Your task to perform on an android device: turn off javascript in the chrome app Image 0: 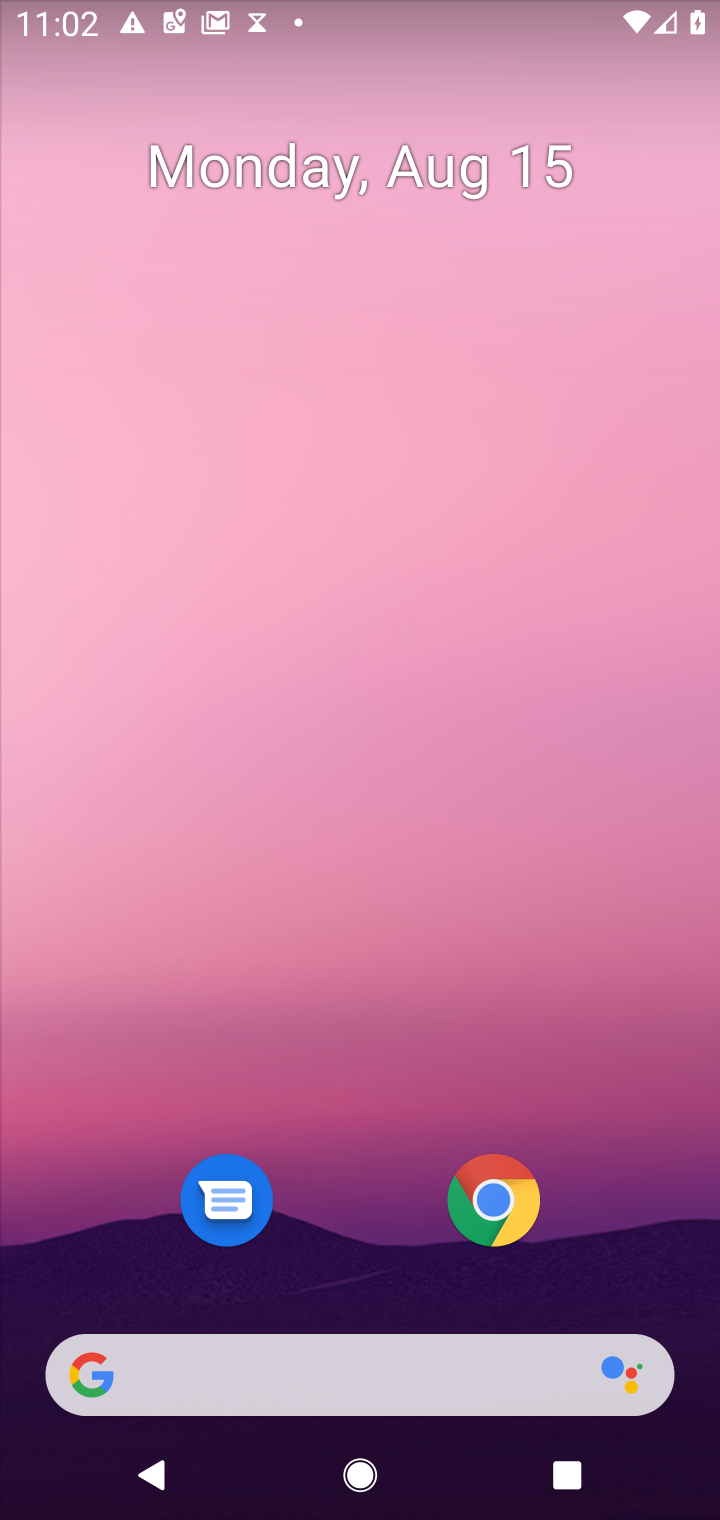
Step 0: click (494, 1223)
Your task to perform on an android device: turn off javascript in the chrome app Image 1: 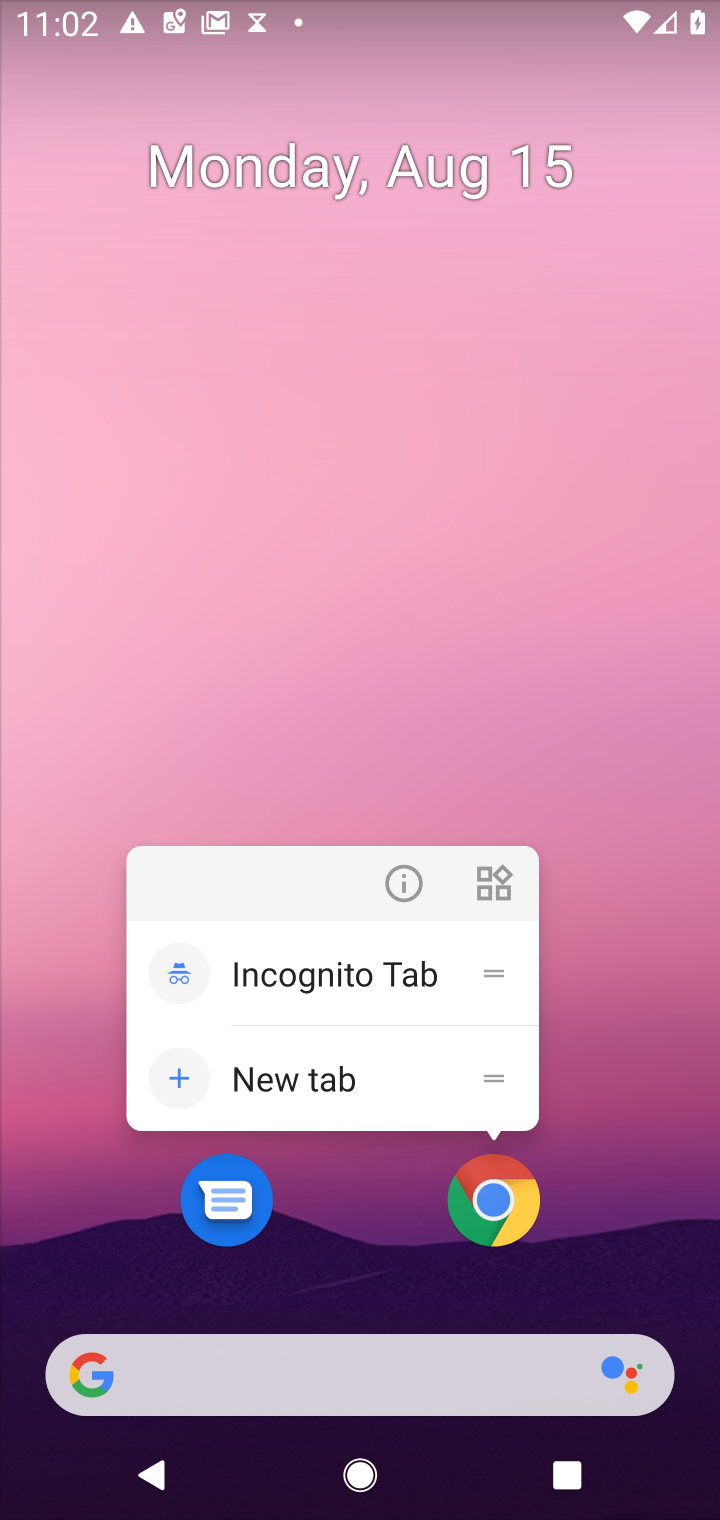
Step 1: click (494, 1223)
Your task to perform on an android device: turn off javascript in the chrome app Image 2: 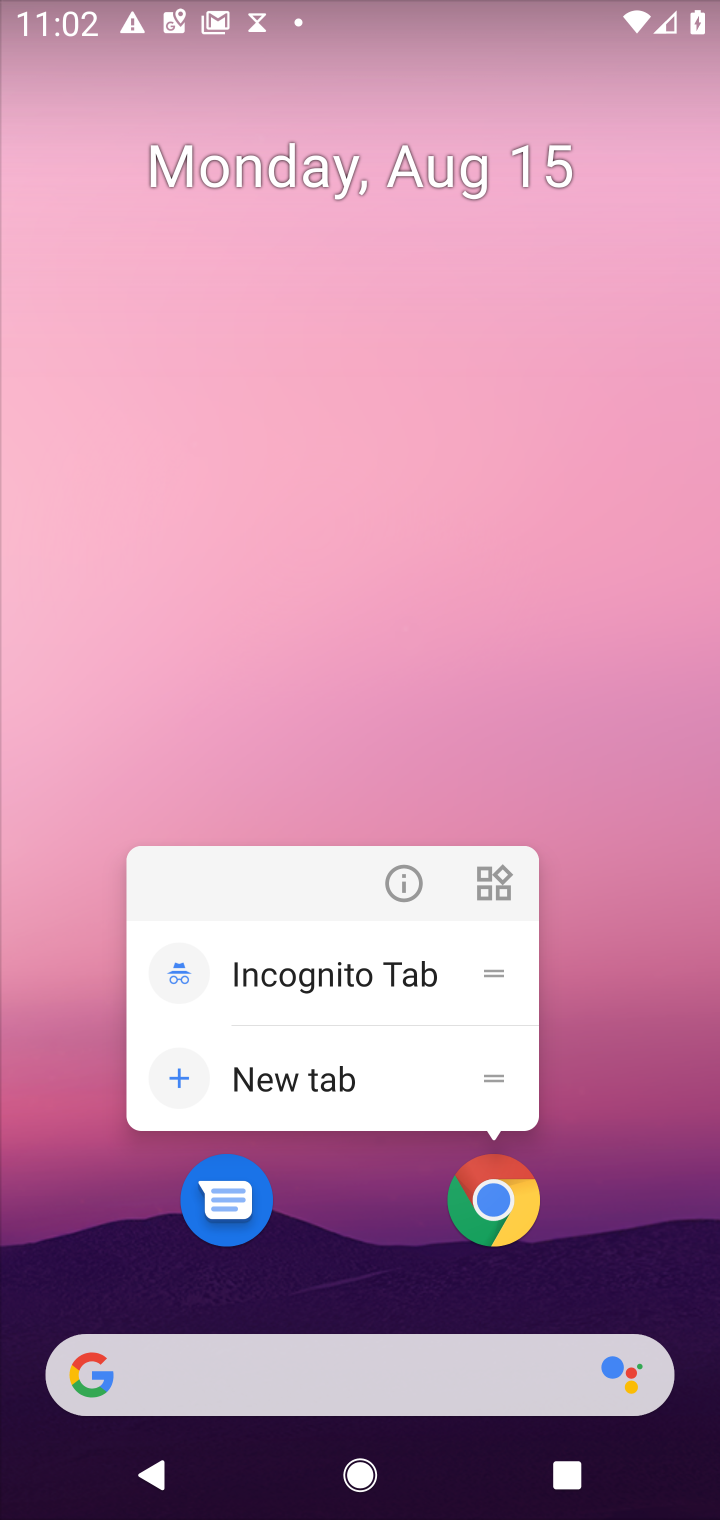
Step 2: click (494, 1223)
Your task to perform on an android device: turn off javascript in the chrome app Image 3: 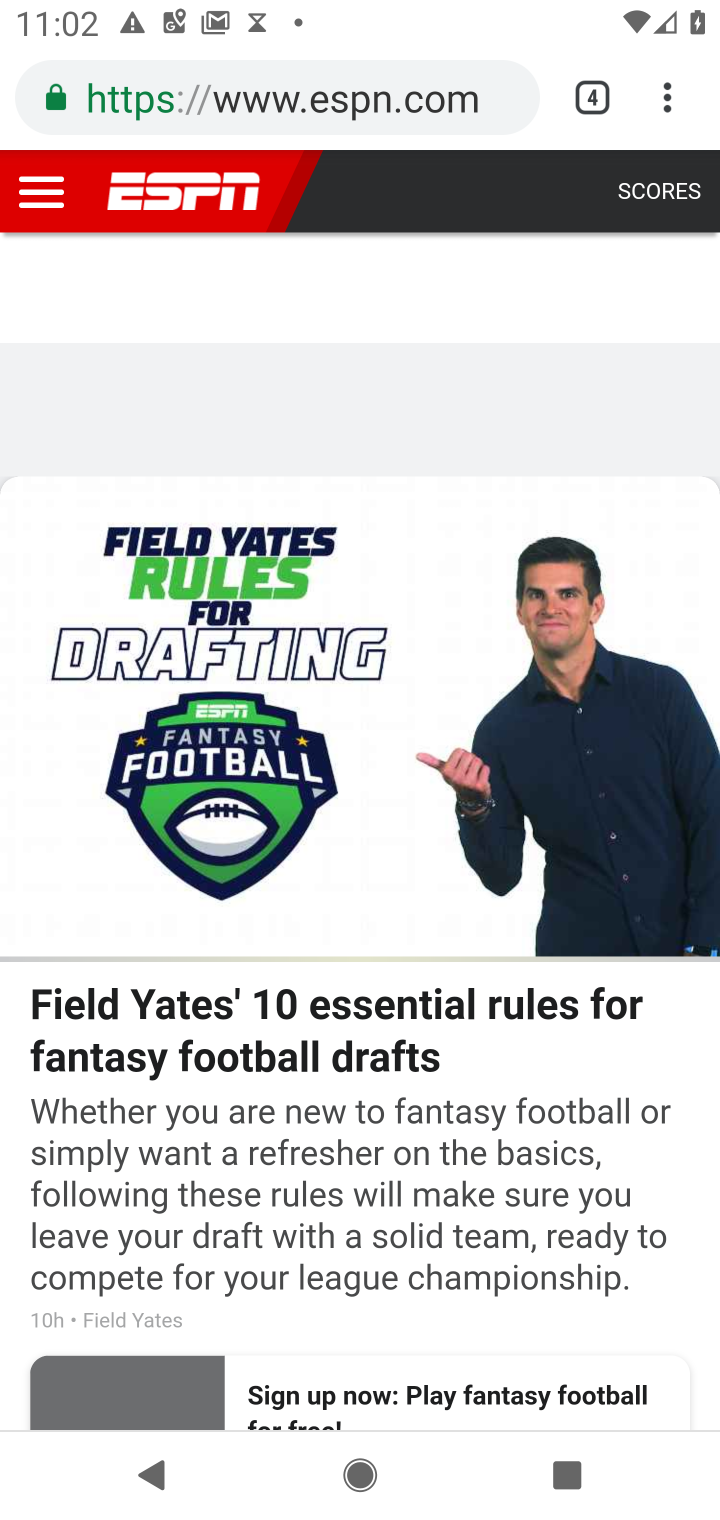
Step 3: click (529, 1214)
Your task to perform on an android device: turn off javascript in the chrome app Image 4: 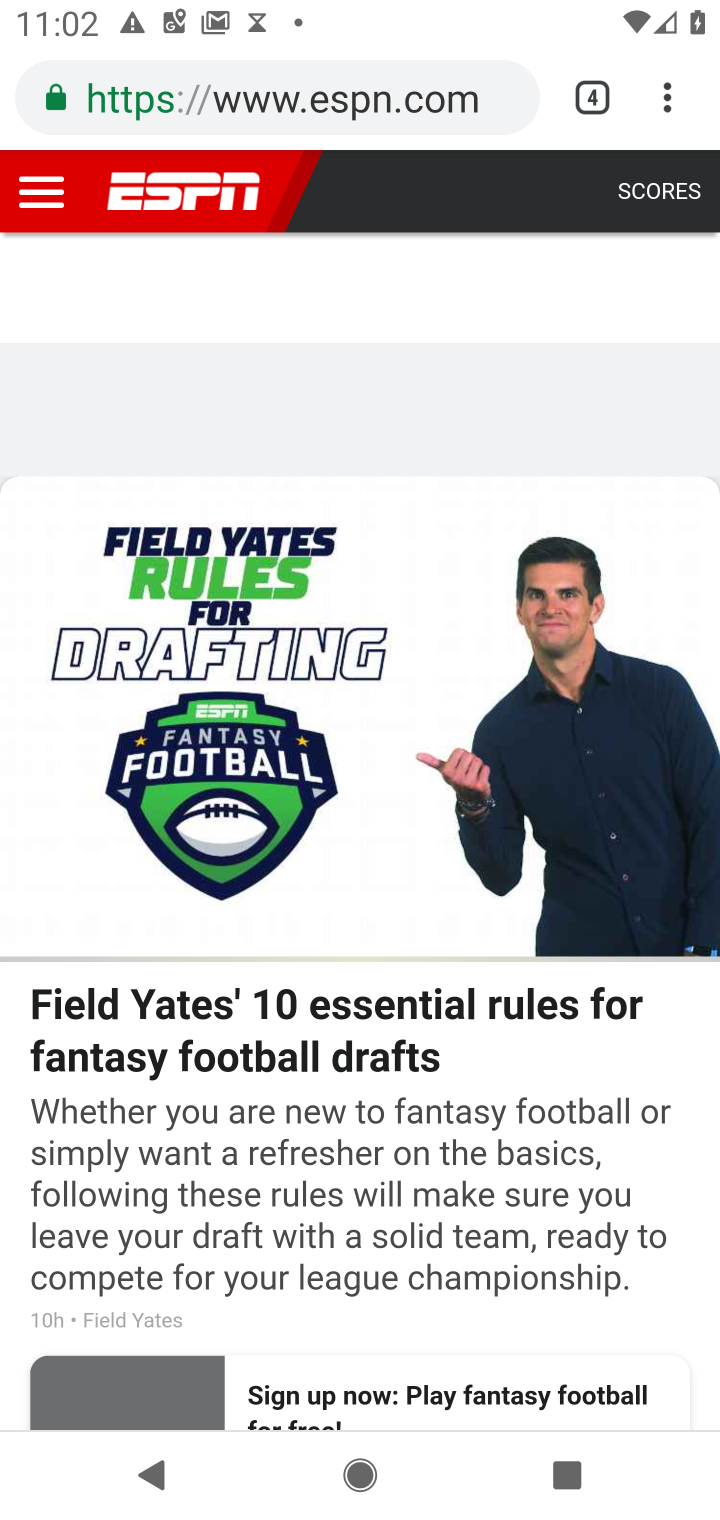
Step 4: drag from (527, 1212) to (533, 643)
Your task to perform on an android device: turn off javascript in the chrome app Image 5: 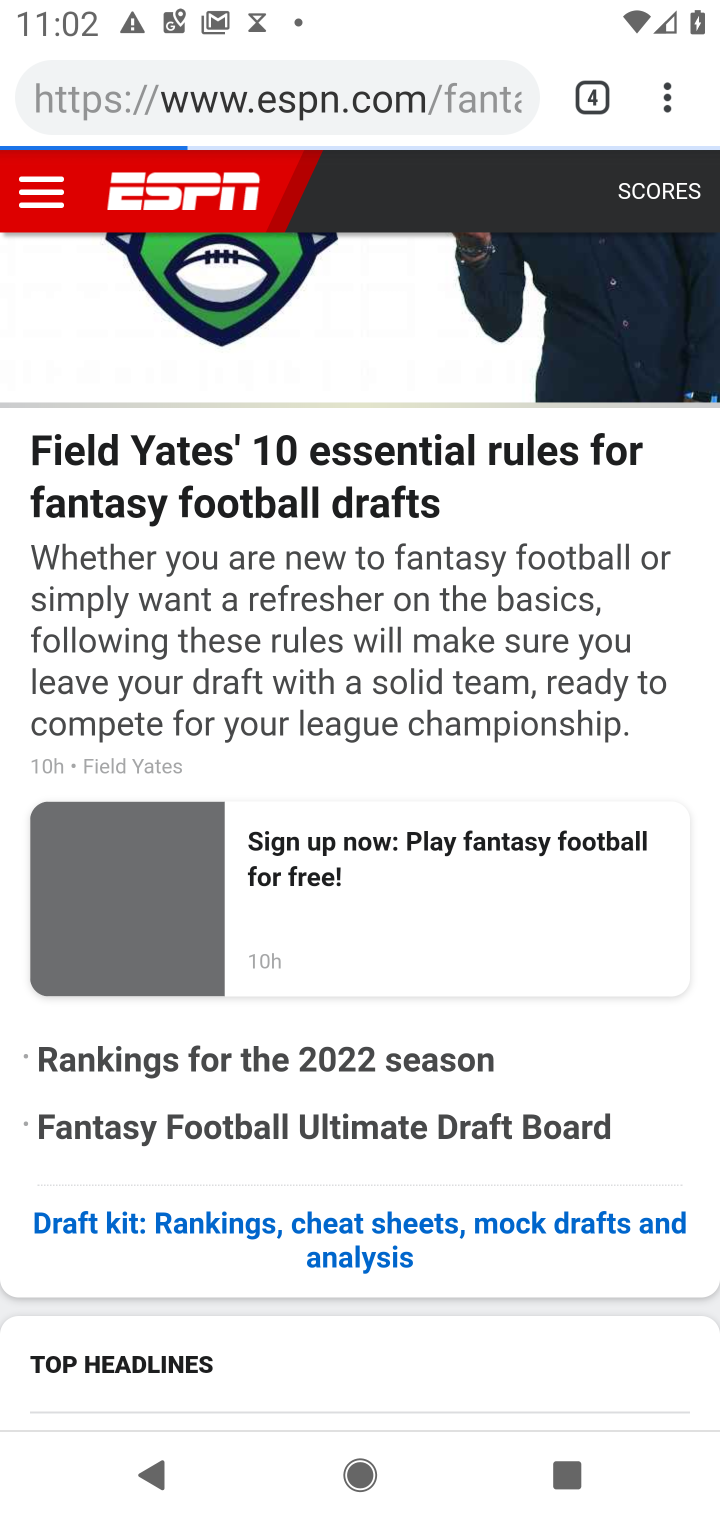
Step 5: click (665, 99)
Your task to perform on an android device: turn off javascript in the chrome app Image 6: 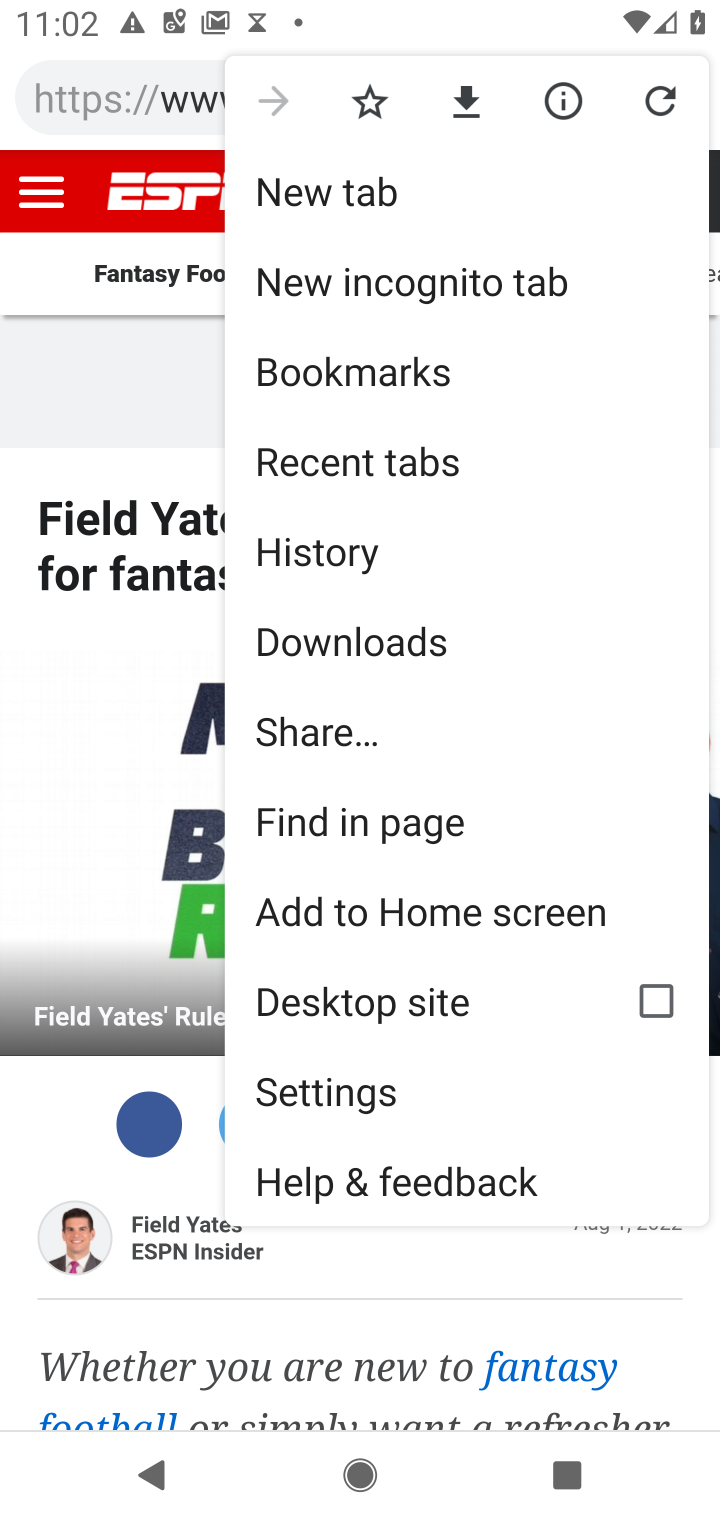
Step 6: click (324, 1075)
Your task to perform on an android device: turn off javascript in the chrome app Image 7: 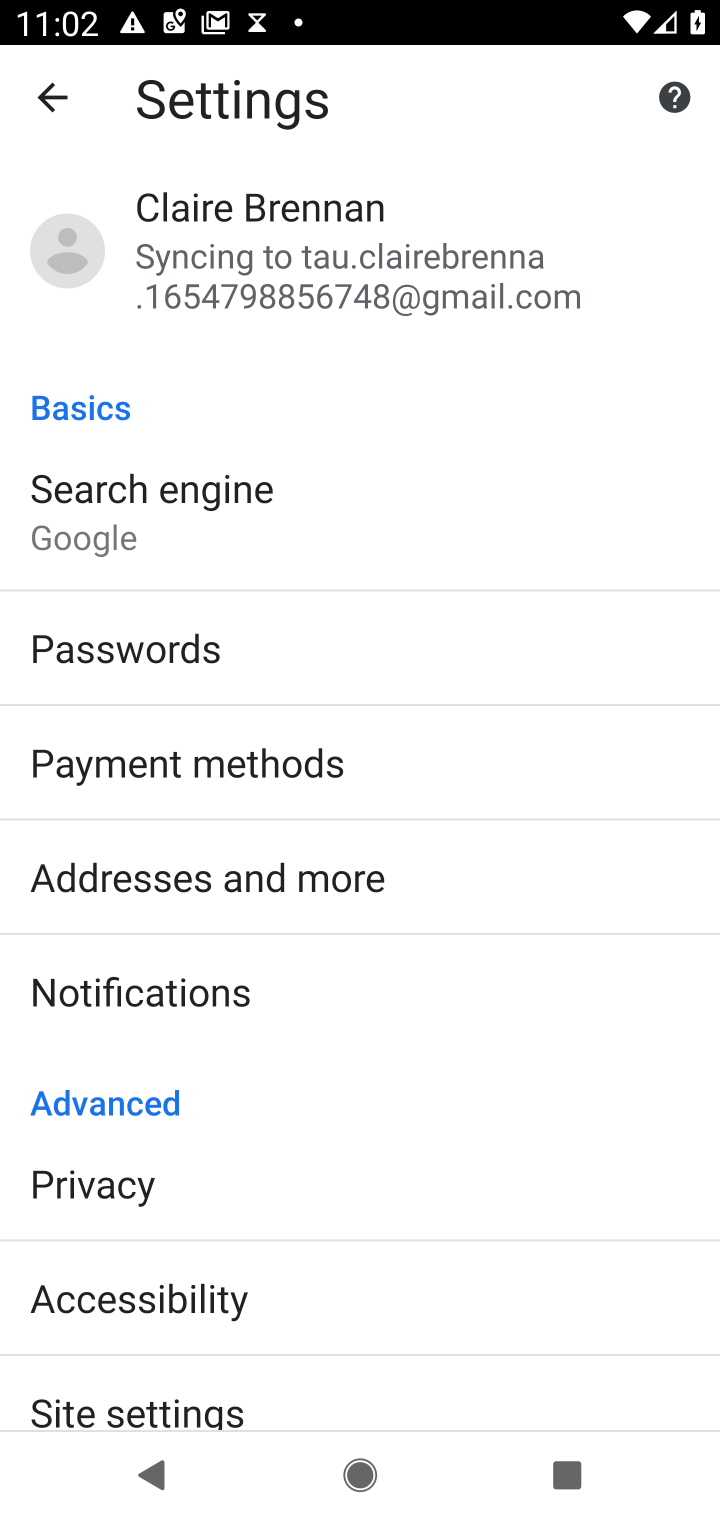
Step 7: click (229, 1381)
Your task to perform on an android device: turn off javascript in the chrome app Image 8: 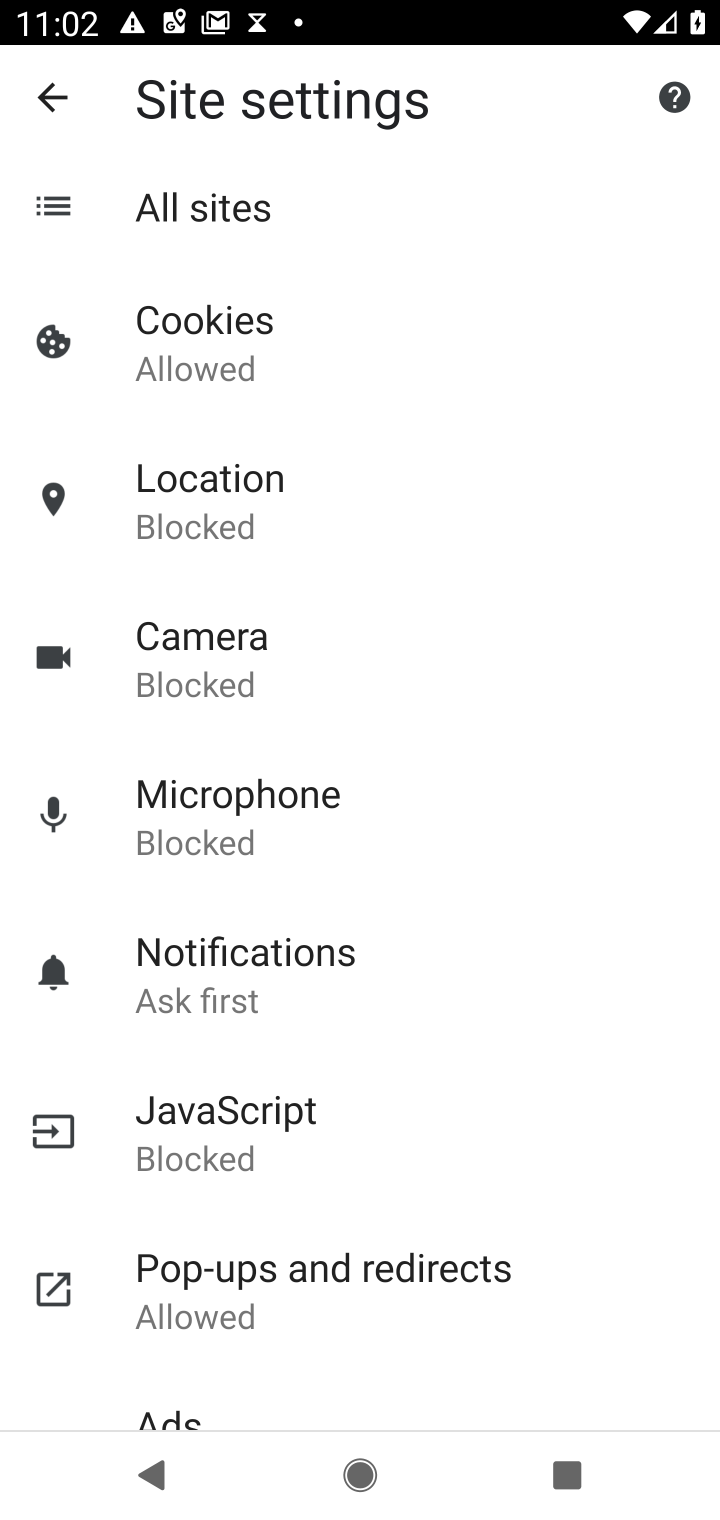
Step 8: click (303, 1128)
Your task to perform on an android device: turn off javascript in the chrome app Image 9: 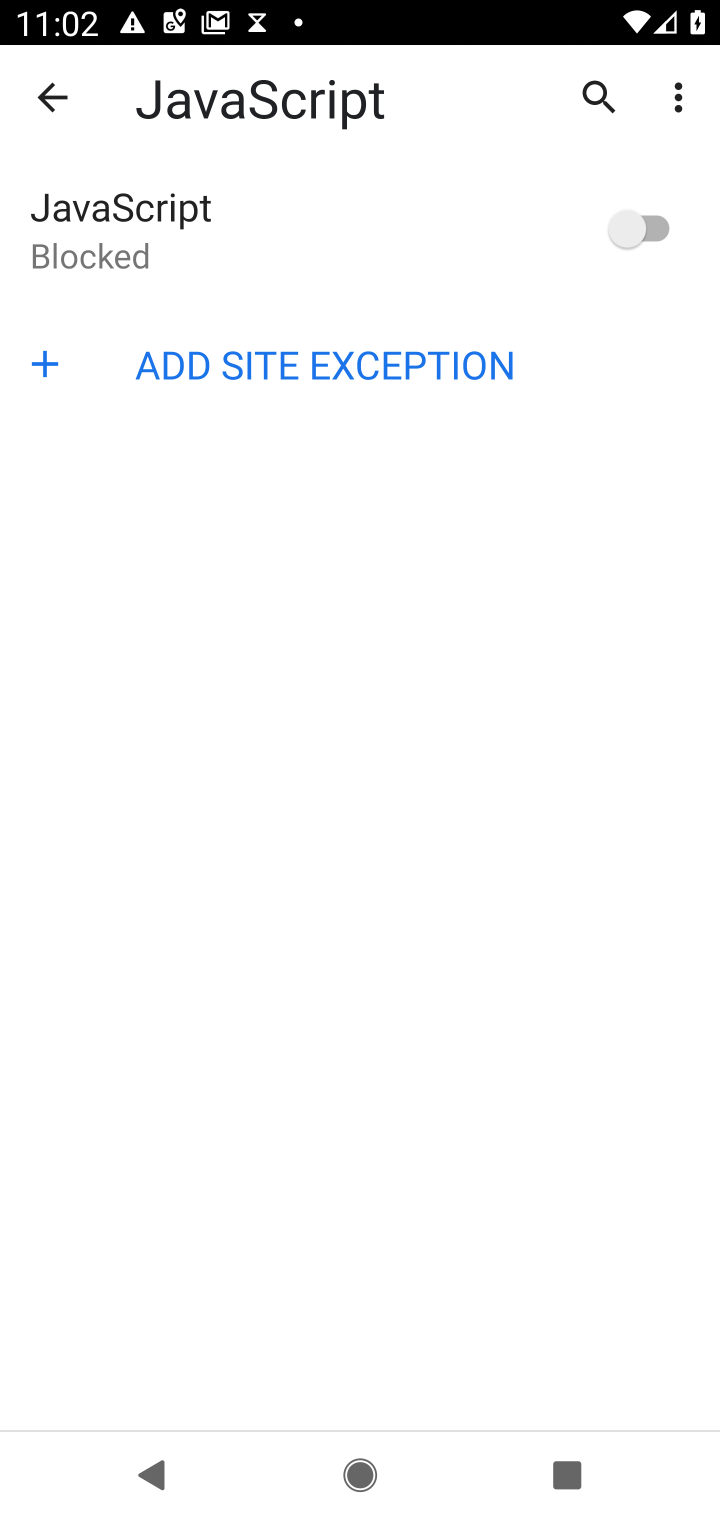
Step 9: task complete